Your task to perform on an android device: Search for pizza restaurants on Maps Image 0: 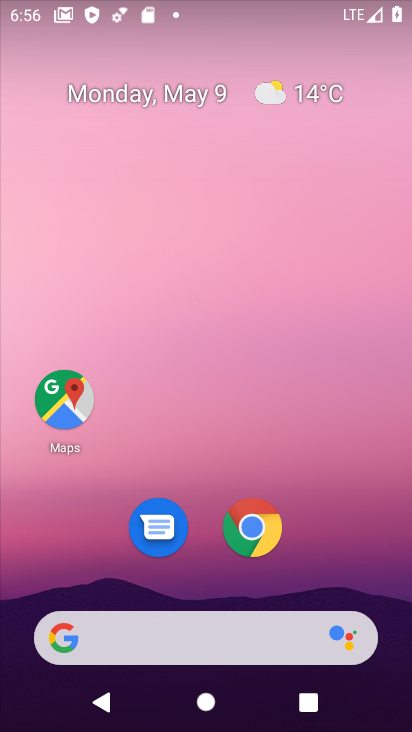
Step 0: click (59, 405)
Your task to perform on an android device: Search for pizza restaurants on Maps Image 1: 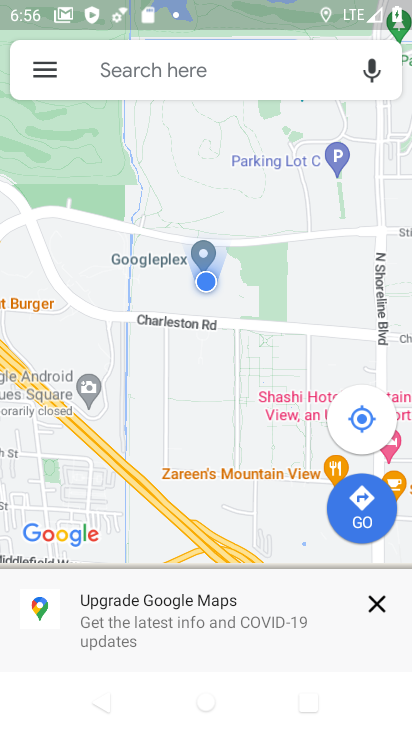
Step 1: click (375, 609)
Your task to perform on an android device: Search for pizza restaurants on Maps Image 2: 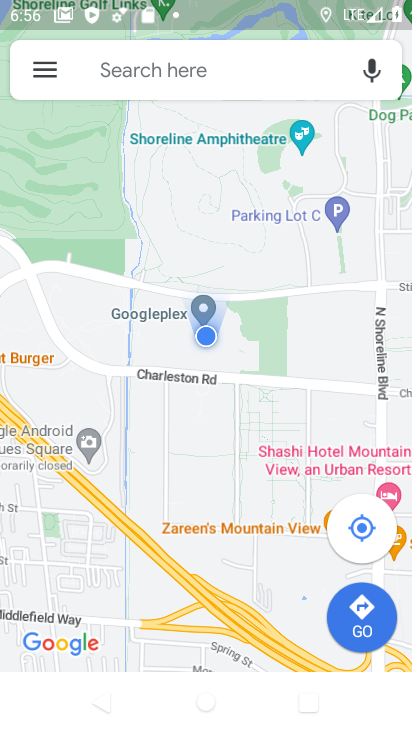
Step 2: click (223, 71)
Your task to perform on an android device: Search for pizza restaurants on Maps Image 3: 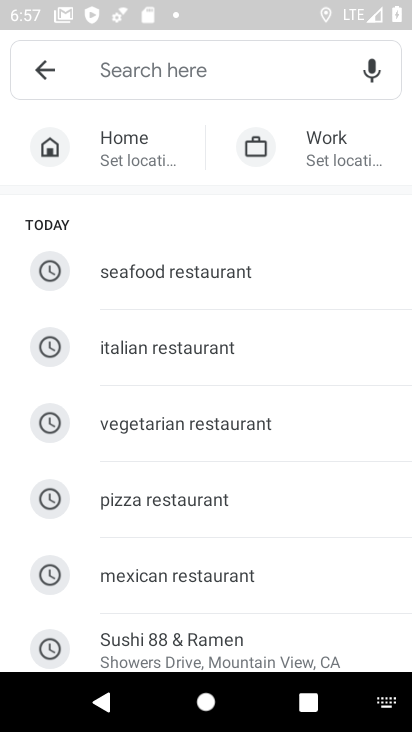
Step 3: type "pizza restaurants"
Your task to perform on an android device: Search for pizza restaurants on Maps Image 4: 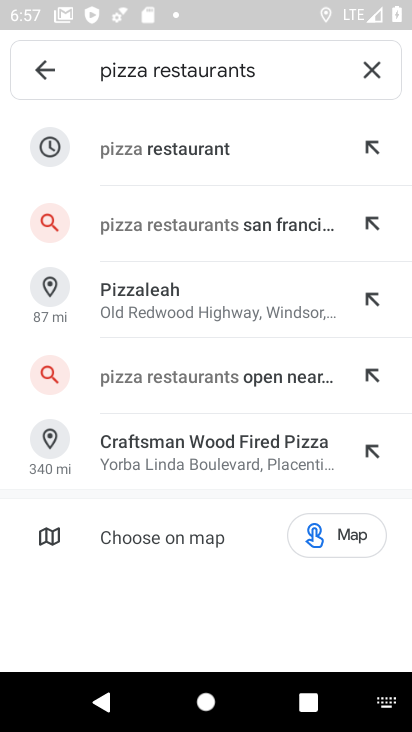
Step 4: click (180, 151)
Your task to perform on an android device: Search for pizza restaurants on Maps Image 5: 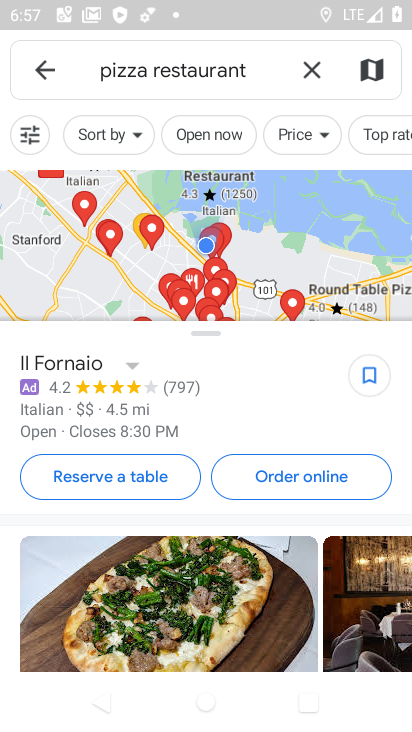
Step 5: task complete